Your task to perform on an android device: clear all cookies in the chrome app Image 0: 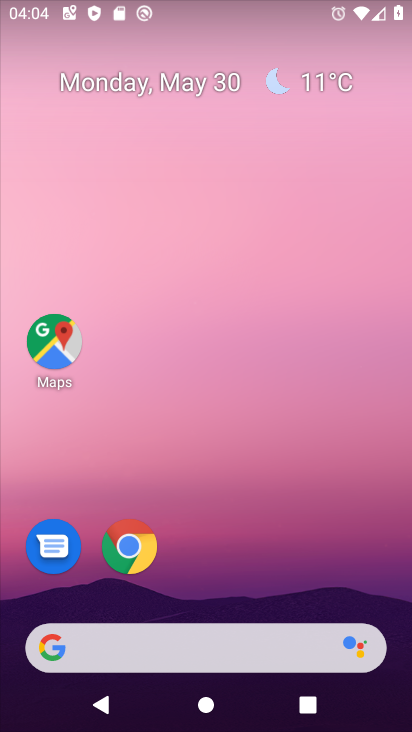
Step 0: click (132, 540)
Your task to perform on an android device: clear all cookies in the chrome app Image 1: 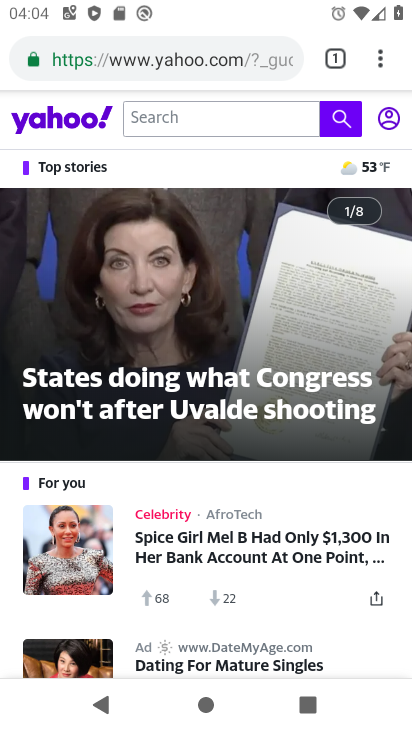
Step 1: click (380, 55)
Your task to perform on an android device: clear all cookies in the chrome app Image 2: 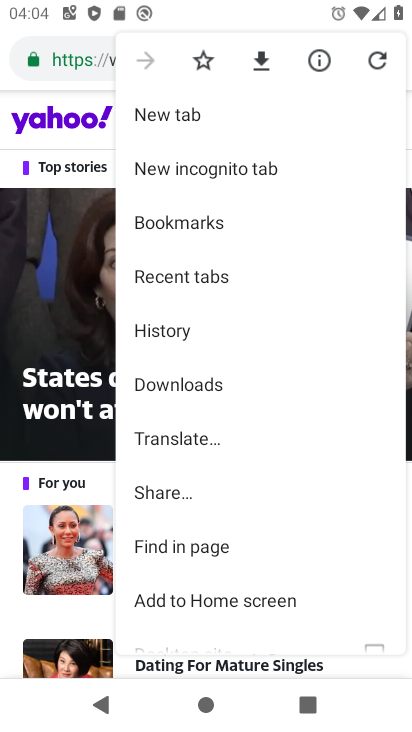
Step 2: click (210, 322)
Your task to perform on an android device: clear all cookies in the chrome app Image 3: 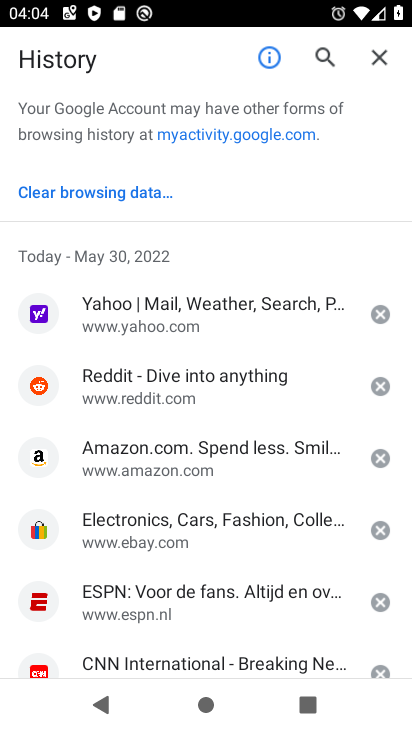
Step 3: click (136, 192)
Your task to perform on an android device: clear all cookies in the chrome app Image 4: 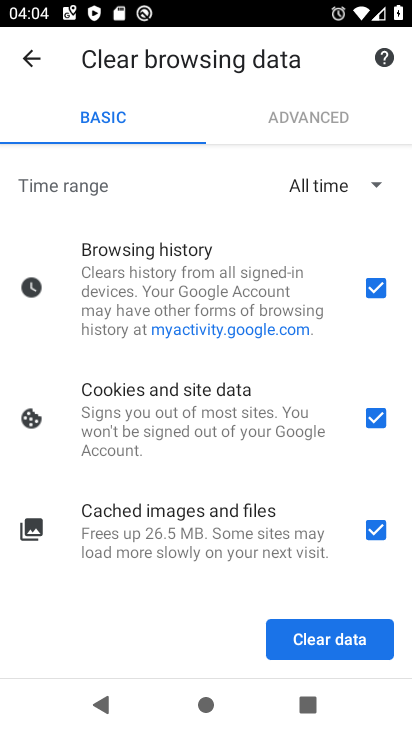
Step 4: click (380, 286)
Your task to perform on an android device: clear all cookies in the chrome app Image 5: 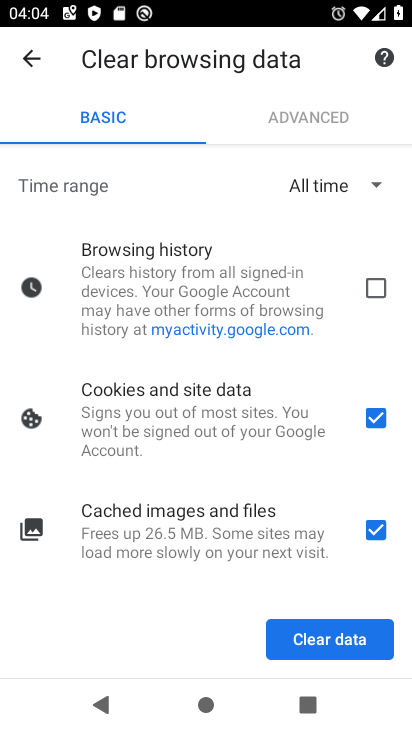
Step 5: click (374, 525)
Your task to perform on an android device: clear all cookies in the chrome app Image 6: 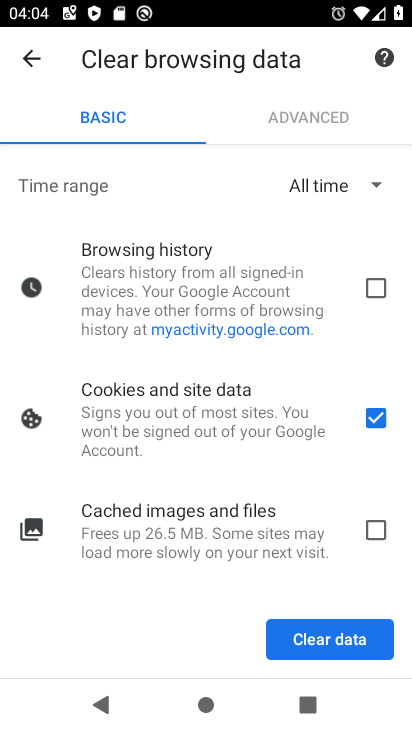
Step 6: click (340, 644)
Your task to perform on an android device: clear all cookies in the chrome app Image 7: 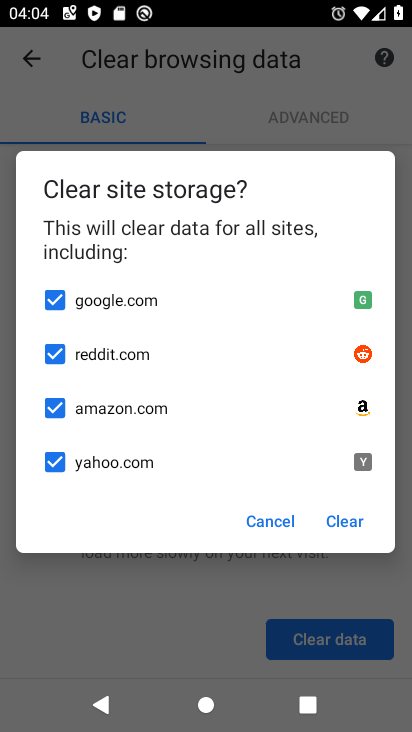
Step 7: click (353, 517)
Your task to perform on an android device: clear all cookies in the chrome app Image 8: 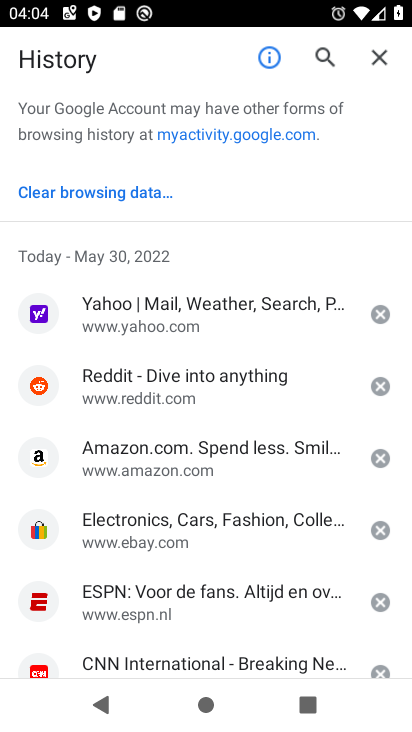
Step 8: task complete